Your task to perform on an android device: turn on sleep mode Image 0: 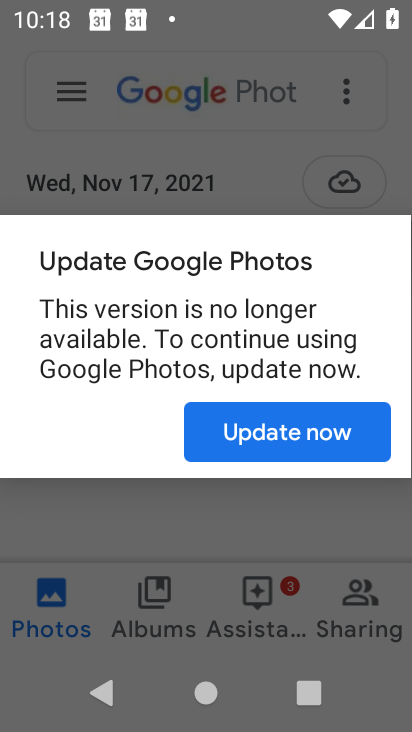
Step 0: press home button
Your task to perform on an android device: turn on sleep mode Image 1: 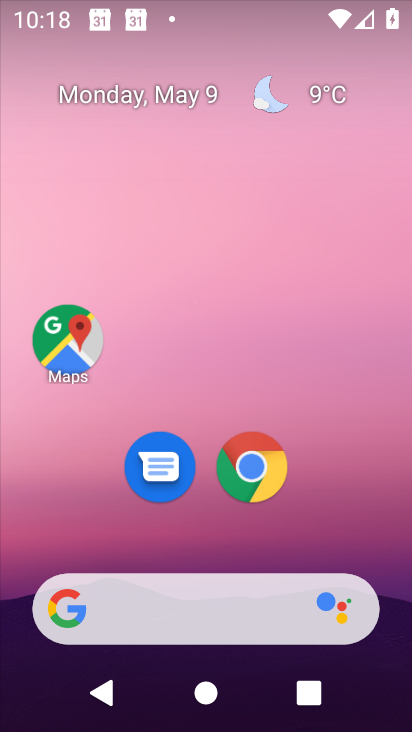
Step 1: drag from (355, 562) to (354, 0)
Your task to perform on an android device: turn on sleep mode Image 2: 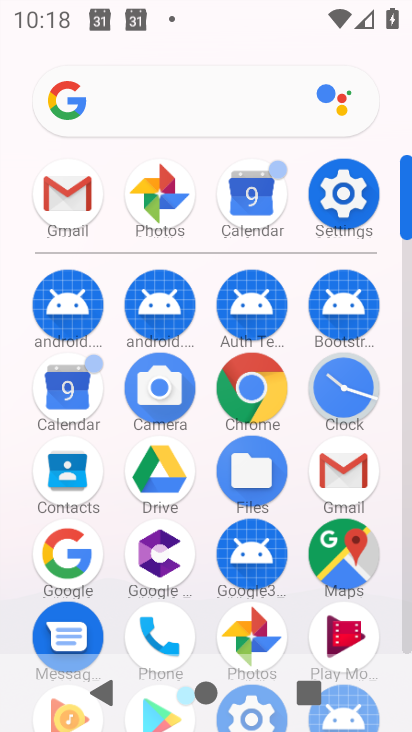
Step 2: click (344, 192)
Your task to perform on an android device: turn on sleep mode Image 3: 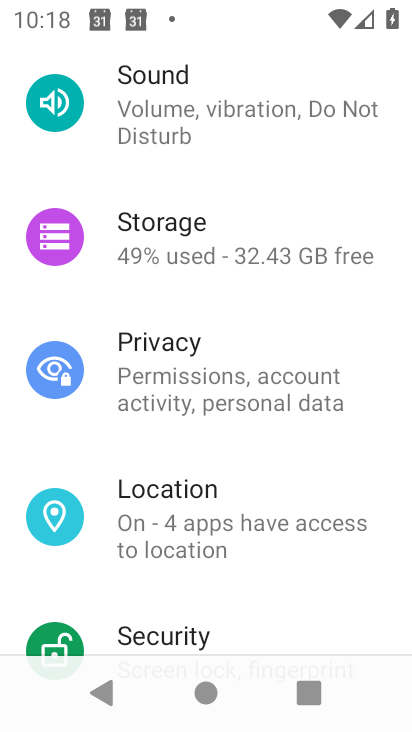
Step 3: drag from (317, 189) to (323, 520)
Your task to perform on an android device: turn on sleep mode Image 4: 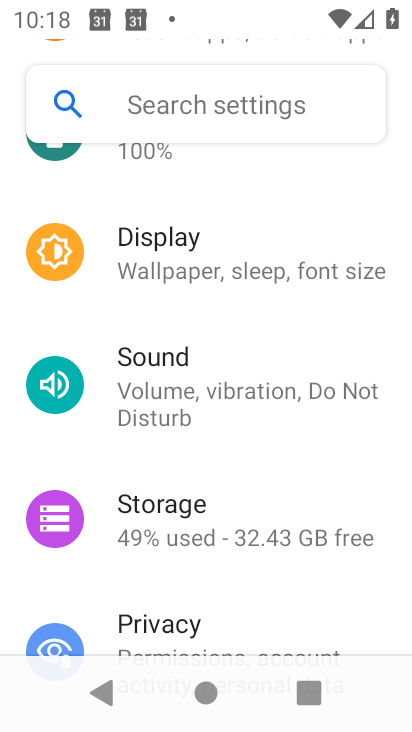
Step 4: click (160, 261)
Your task to perform on an android device: turn on sleep mode Image 5: 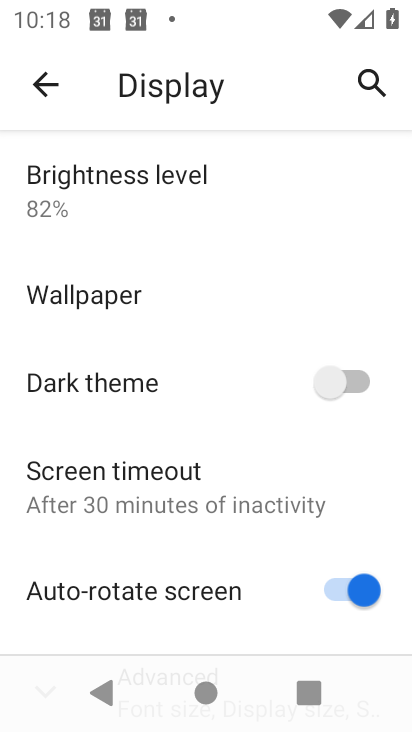
Step 5: drag from (202, 444) to (210, 140)
Your task to perform on an android device: turn on sleep mode Image 6: 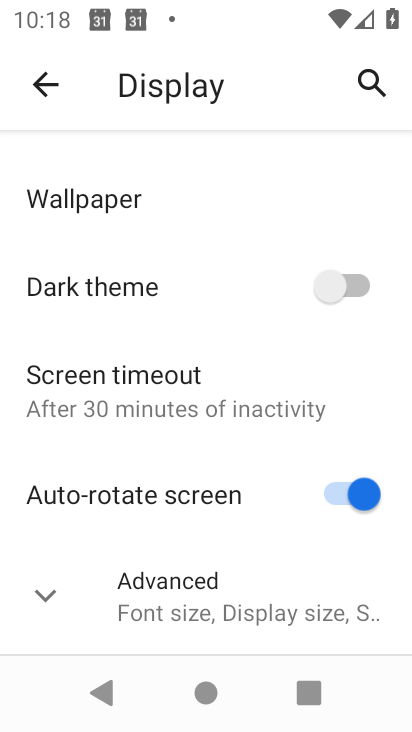
Step 6: click (39, 611)
Your task to perform on an android device: turn on sleep mode Image 7: 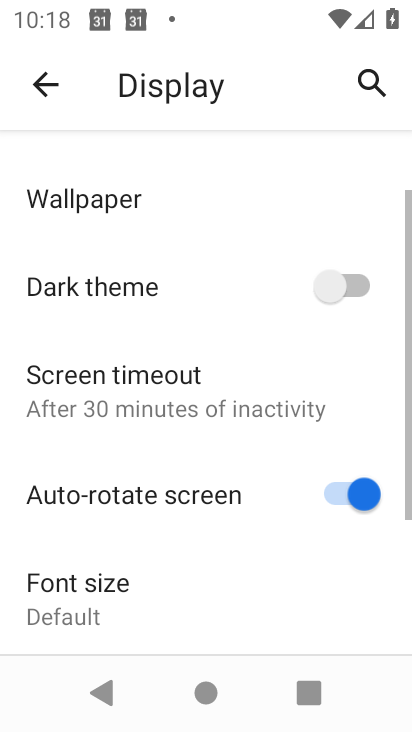
Step 7: task complete